Your task to perform on an android device: Go to CNN.com Image 0: 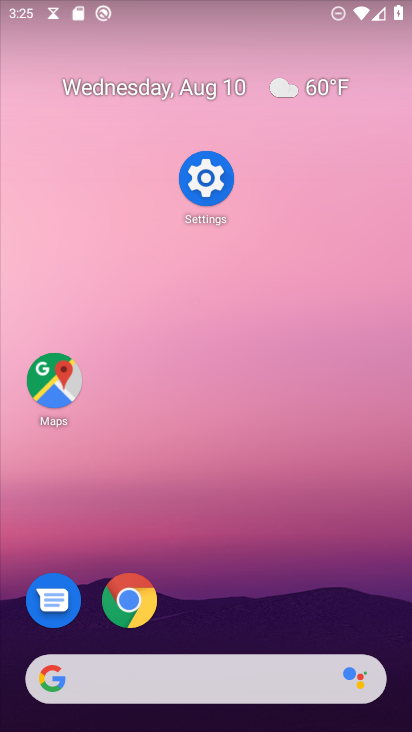
Step 0: click (36, 692)
Your task to perform on an android device: Go to CNN.com Image 1: 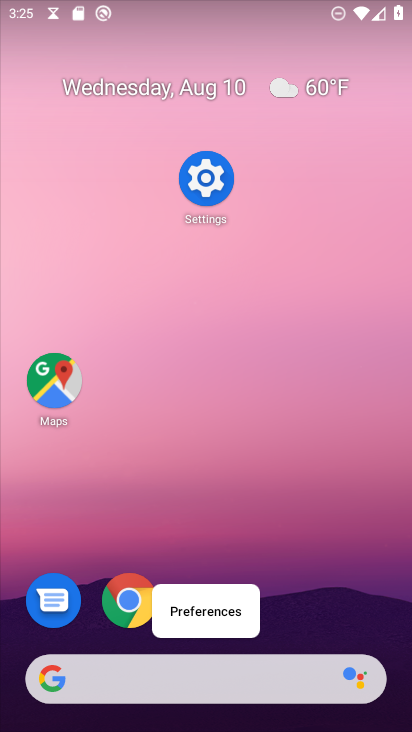
Step 1: click (53, 691)
Your task to perform on an android device: Go to CNN.com Image 2: 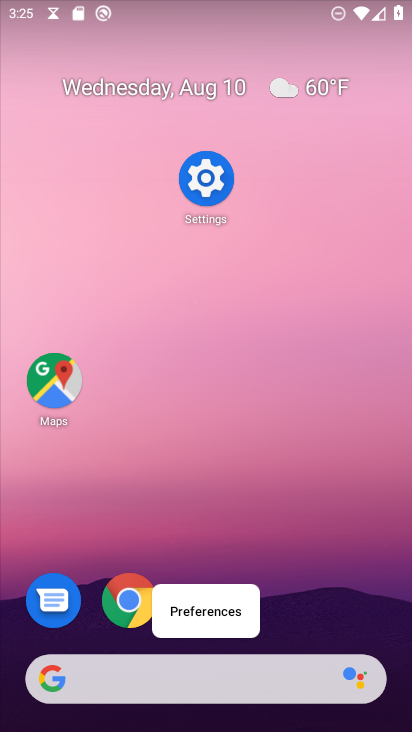
Step 2: click (56, 693)
Your task to perform on an android device: Go to CNN.com Image 3: 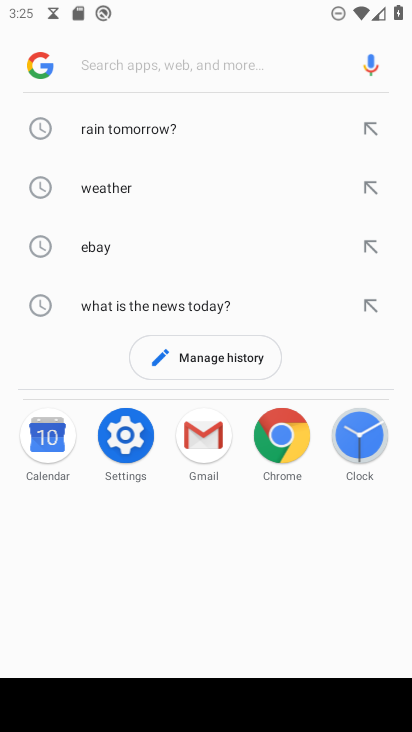
Step 3: type "CNN.com"
Your task to perform on an android device: Go to CNN.com Image 4: 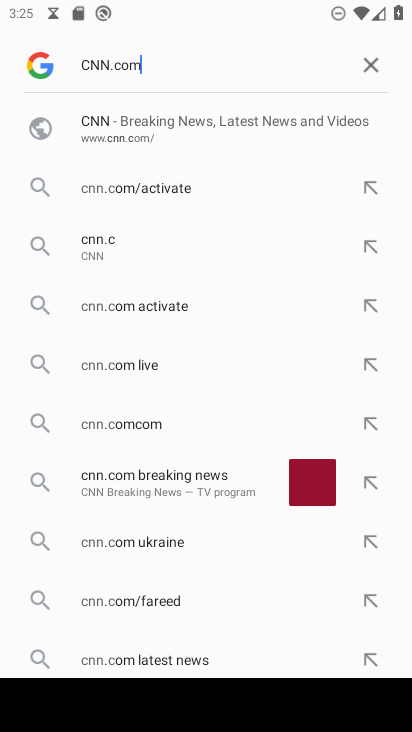
Step 4: press enter
Your task to perform on an android device: Go to CNN.com Image 5: 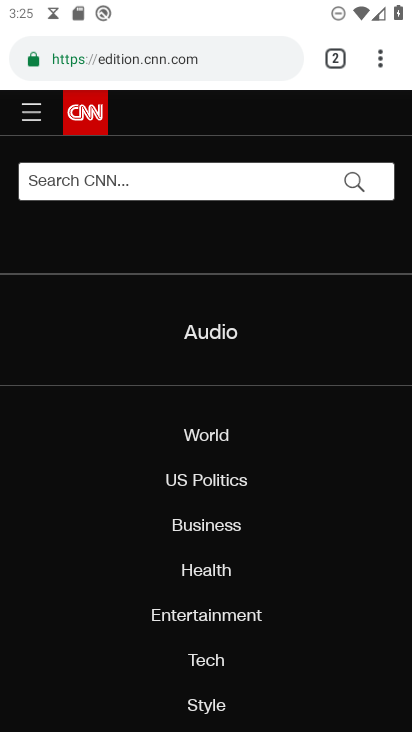
Step 5: task complete